Your task to perform on an android device: set the stopwatch Image 0: 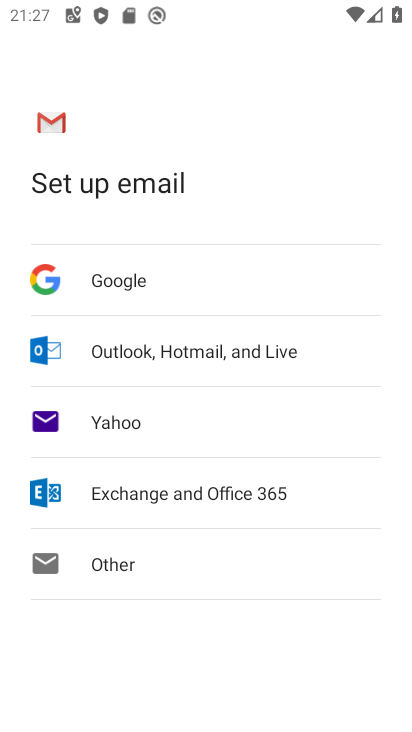
Step 0: press home button
Your task to perform on an android device: set the stopwatch Image 1: 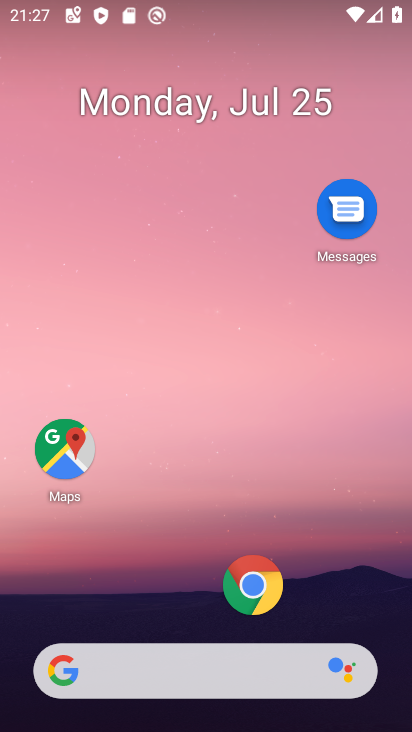
Step 1: drag from (197, 676) to (291, 2)
Your task to perform on an android device: set the stopwatch Image 2: 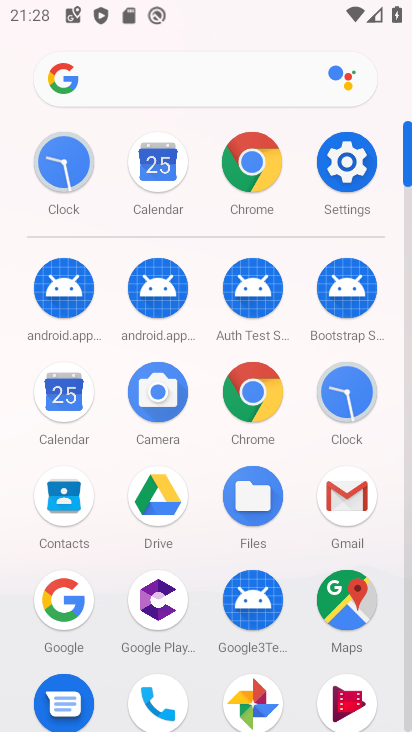
Step 2: click (63, 173)
Your task to perform on an android device: set the stopwatch Image 3: 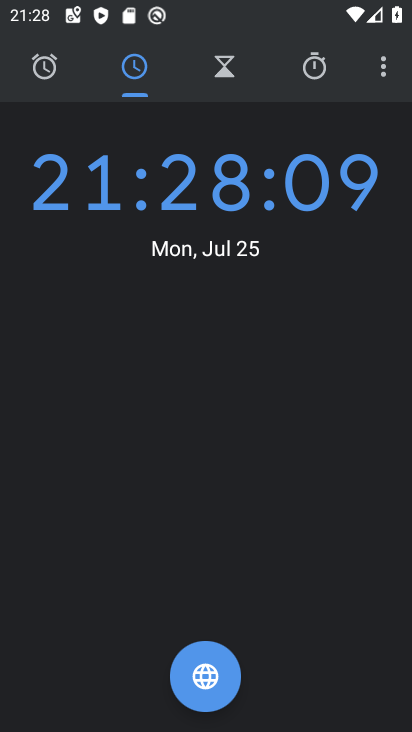
Step 3: click (314, 73)
Your task to perform on an android device: set the stopwatch Image 4: 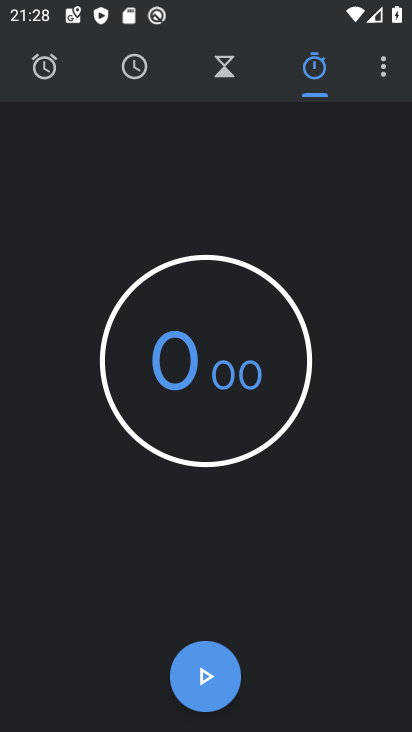
Step 4: click (207, 371)
Your task to perform on an android device: set the stopwatch Image 5: 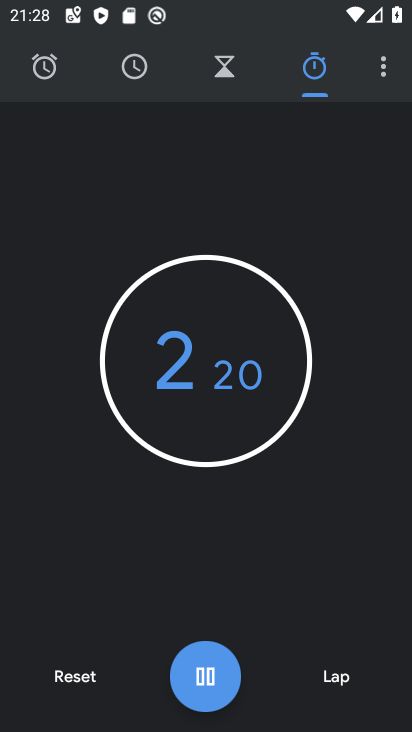
Step 5: click (209, 364)
Your task to perform on an android device: set the stopwatch Image 6: 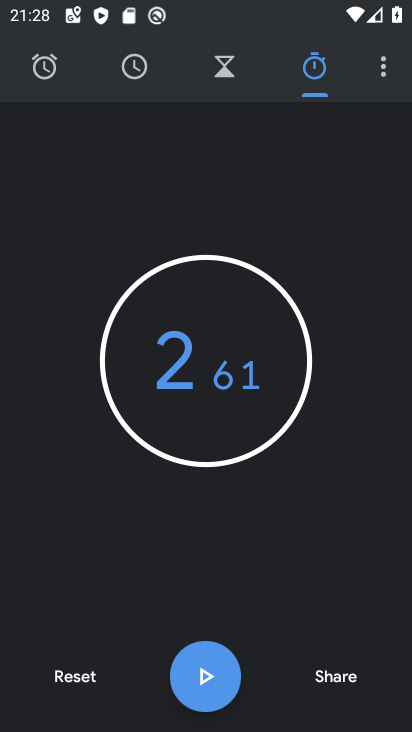
Step 6: task complete